Your task to perform on an android device: open app "eBay: The shopping marketplace" (install if not already installed), go to login, and select forgot password Image 0: 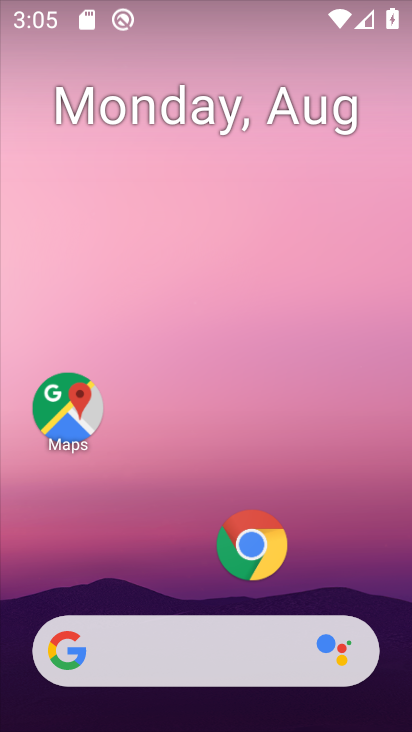
Step 0: drag from (174, 590) to (251, 56)
Your task to perform on an android device: open app "eBay: The shopping marketplace" (install if not already installed), go to login, and select forgot password Image 1: 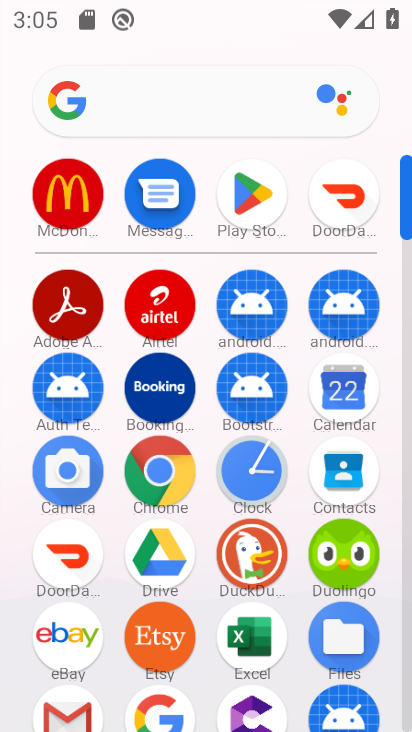
Step 1: click (241, 204)
Your task to perform on an android device: open app "eBay: The shopping marketplace" (install if not already installed), go to login, and select forgot password Image 2: 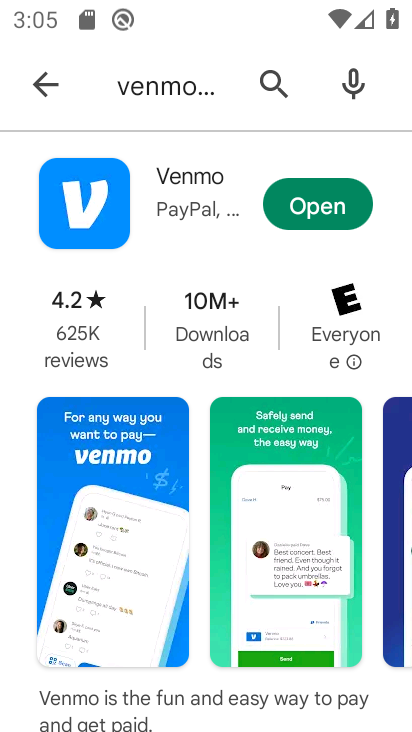
Step 2: click (266, 62)
Your task to perform on an android device: open app "eBay: The shopping marketplace" (install if not already installed), go to login, and select forgot password Image 3: 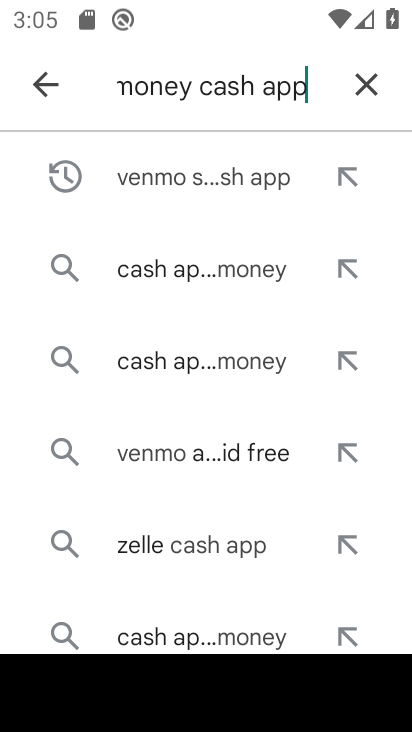
Step 3: click (372, 82)
Your task to perform on an android device: open app "eBay: The shopping marketplace" (install if not already installed), go to login, and select forgot password Image 4: 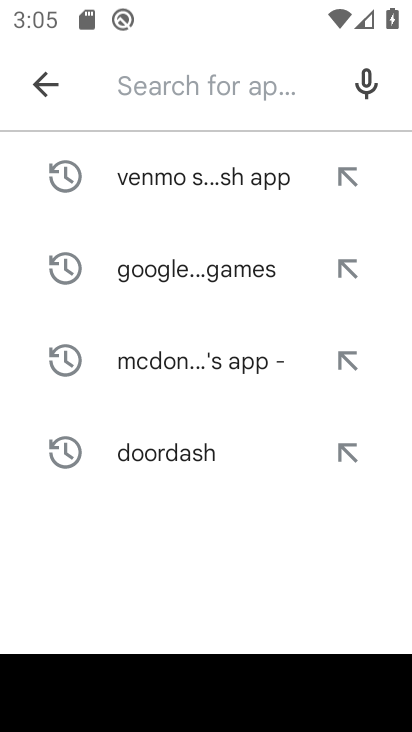
Step 4: click (147, 82)
Your task to perform on an android device: open app "eBay: The shopping marketplace" (install if not already installed), go to login, and select forgot password Image 5: 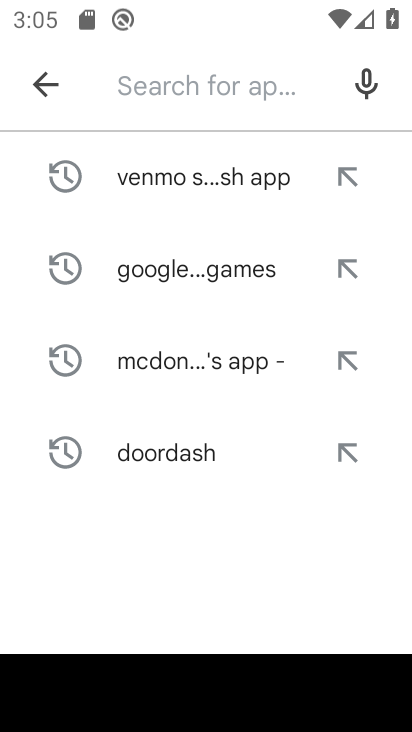
Step 5: type "ebay"
Your task to perform on an android device: open app "eBay: The shopping marketplace" (install if not already installed), go to login, and select forgot password Image 6: 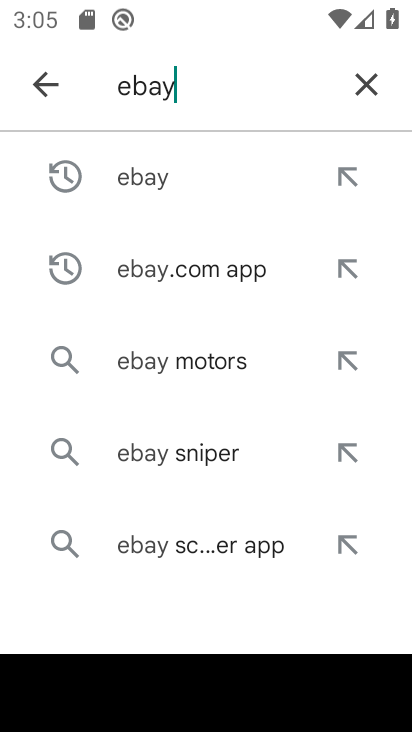
Step 6: click (118, 169)
Your task to perform on an android device: open app "eBay: The shopping marketplace" (install if not already installed), go to login, and select forgot password Image 7: 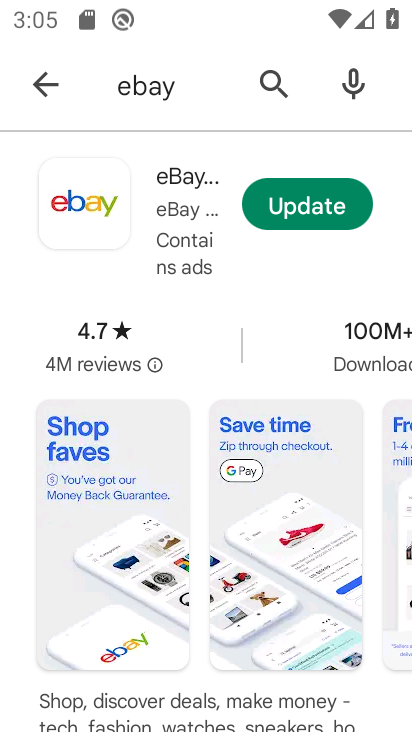
Step 7: click (184, 207)
Your task to perform on an android device: open app "eBay: The shopping marketplace" (install if not already installed), go to login, and select forgot password Image 8: 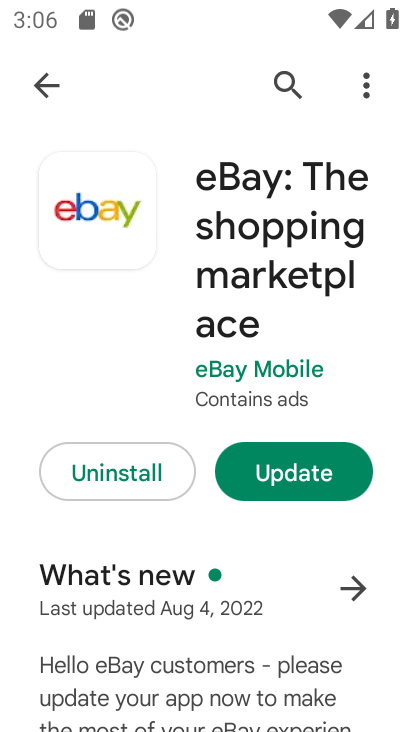
Step 8: task complete